Your task to perform on an android device: change notification settings in the gmail app Image 0: 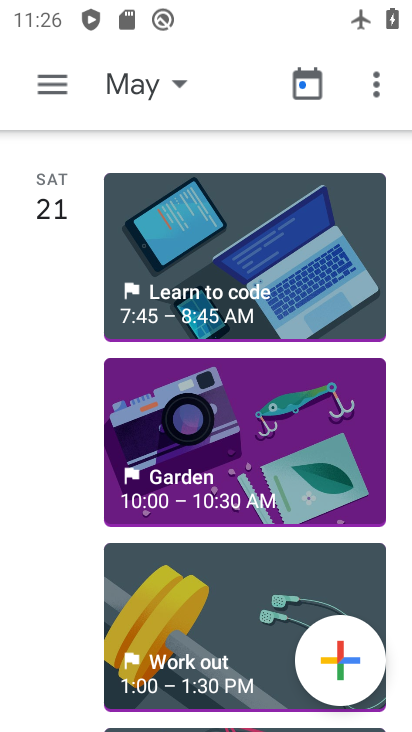
Step 0: press home button
Your task to perform on an android device: change notification settings in the gmail app Image 1: 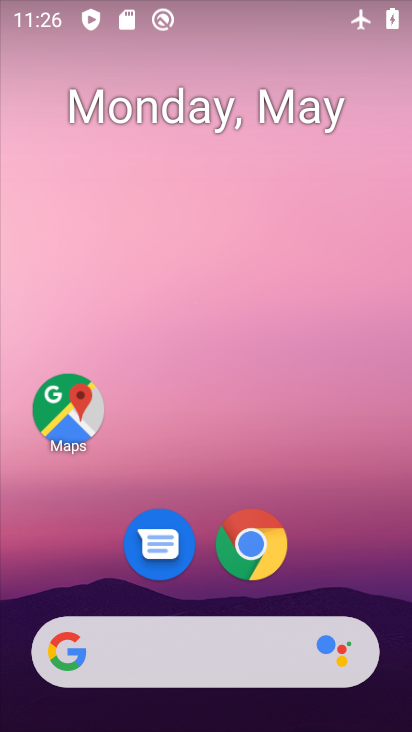
Step 1: drag from (342, 518) to (338, 123)
Your task to perform on an android device: change notification settings in the gmail app Image 2: 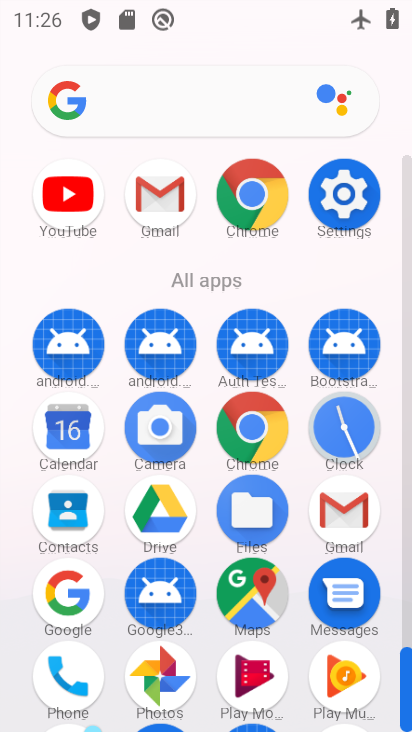
Step 2: click (330, 512)
Your task to perform on an android device: change notification settings in the gmail app Image 3: 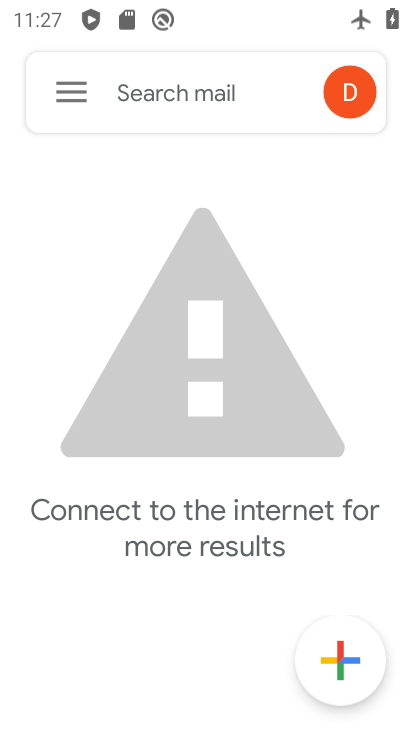
Step 3: click (84, 98)
Your task to perform on an android device: change notification settings in the gmail app Image 4: 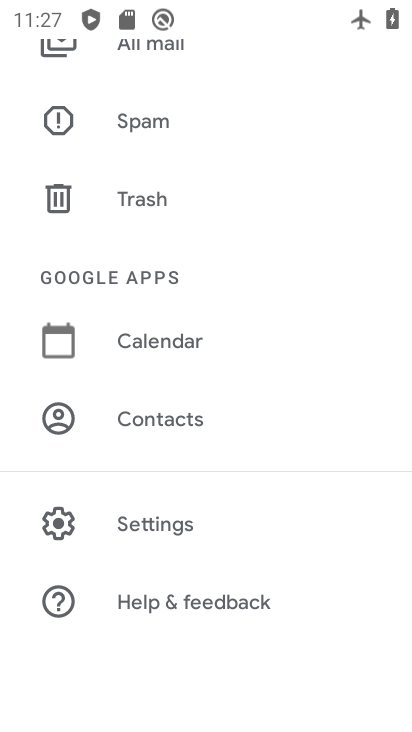
Step 4: drag from (256, 273) to (256, 514)
Your task to perform on an android device: change notification settings in the gmail app Image 5: 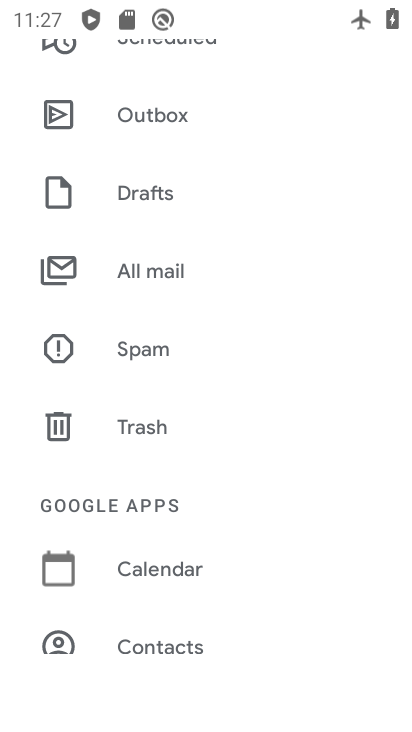
Step 5: drag from (260, 654) to (264, 501)
Your task to perform on an android device: change notification settings in the gmail app Image 6: 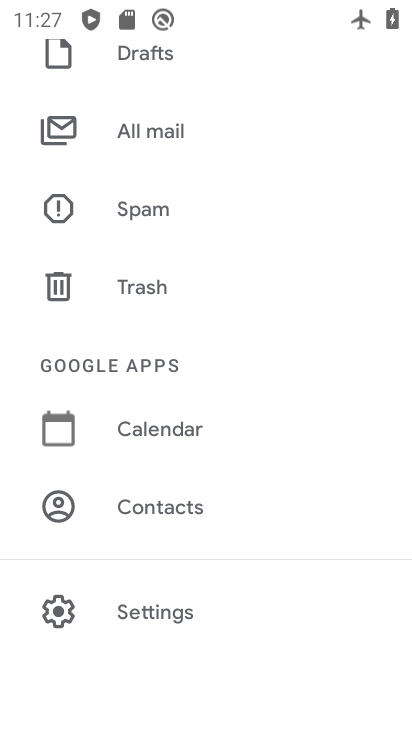
Step 6: click (233, 597)
Your task to perform on an android device: change notification settings in the gmail app Image 7: 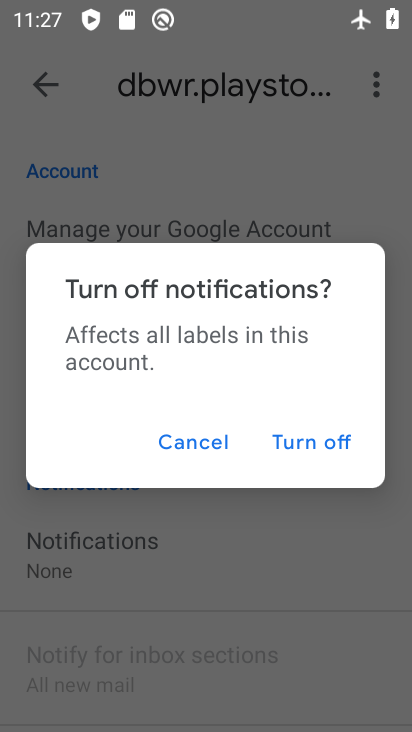
Step 7: click (323, 444)
Your task to perform on an android device: change notification settings in the gmail app Image 8: 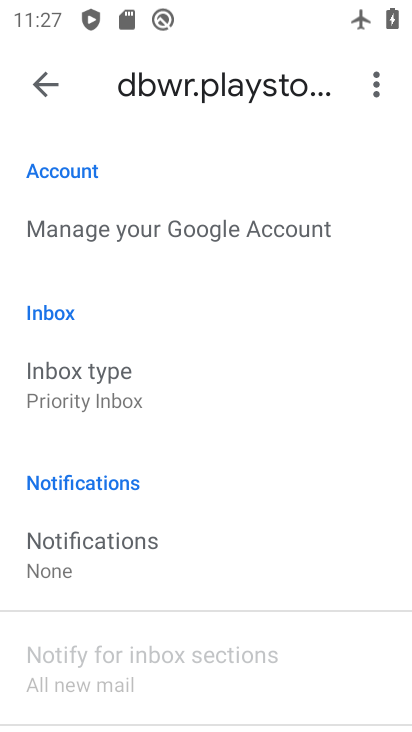
Step 8: click (120, 537)
Your task to perform on an android device: change notification settings in the gmail app Image 9: 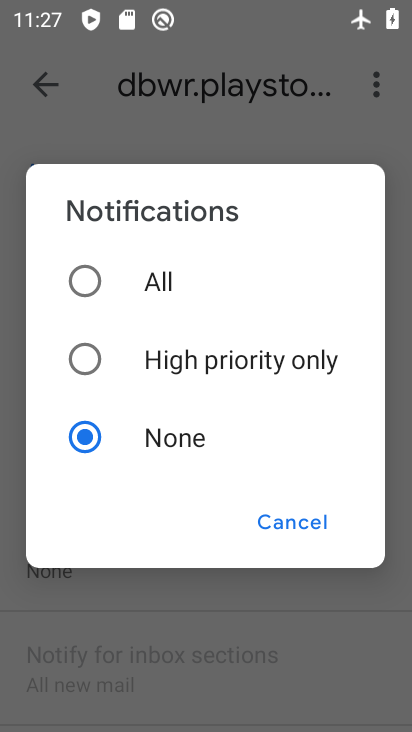
Step 9: click (81, 366)
Your task to perform on an android device: change notification settings in the gmail app Image 10: 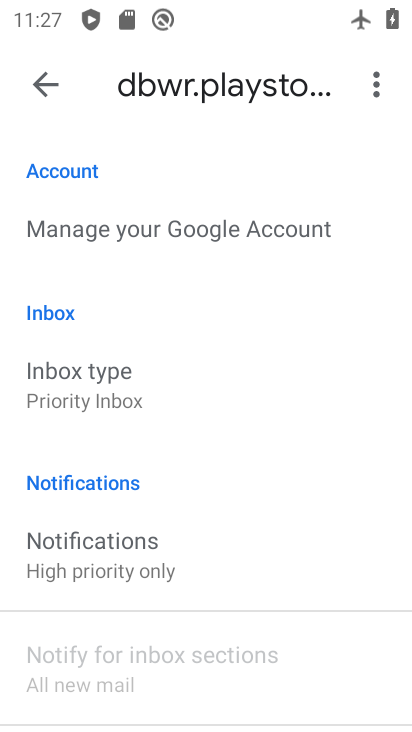
Step 10: task complete